Your task to perform on an android device: Go to Amazon Image 0: 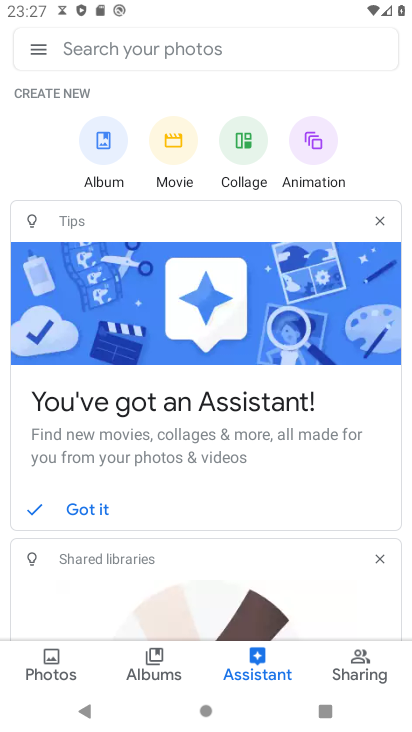
Step 0: press home button
Your task to perform on an android device: Go to Amazon Image 1: 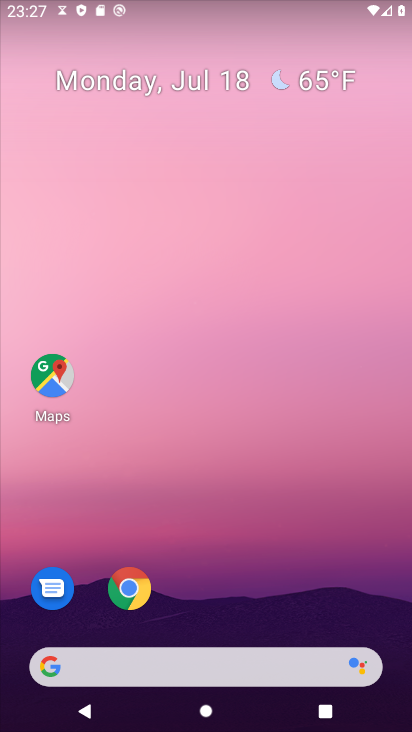
Step 1: click (48, 656)
Your task to perform on an android device: Go to Amazon Image 2: 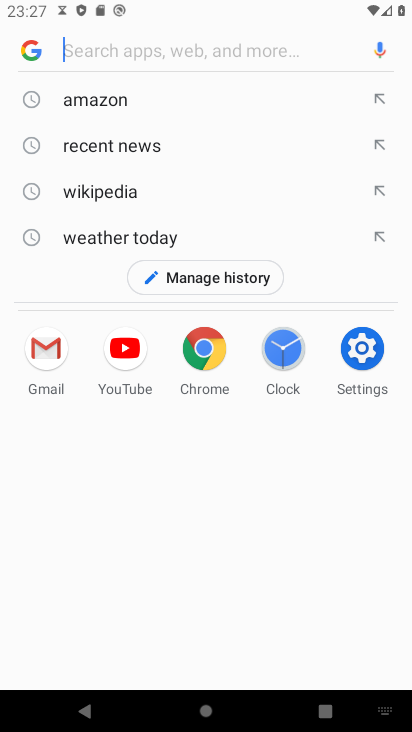
Step 2: click (107, 97)
Your task to perform on an android device: Go to Amazon Image 3: 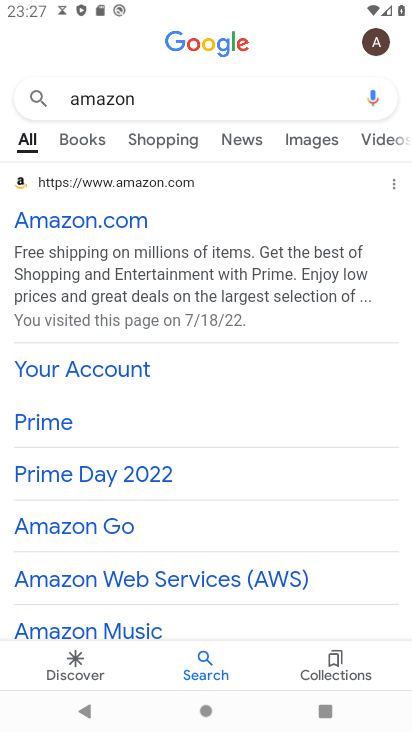
Step 3: click (76, 219)
Your task to perform on an android device: Go to Amazon Image 4: 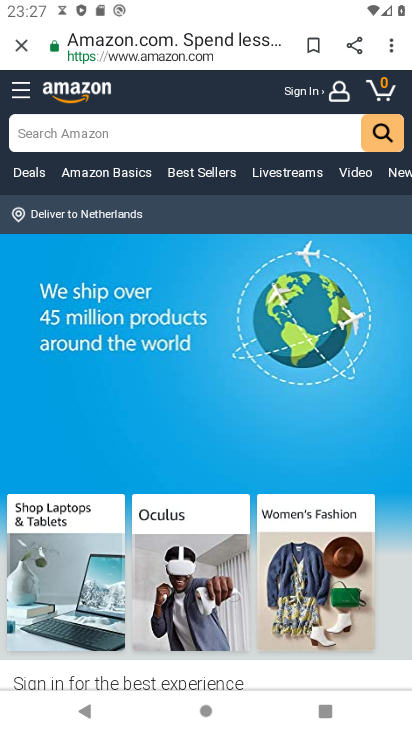
Step 4: task complete